Your task to perform on an android device: Turn off the flashlight Image 0: 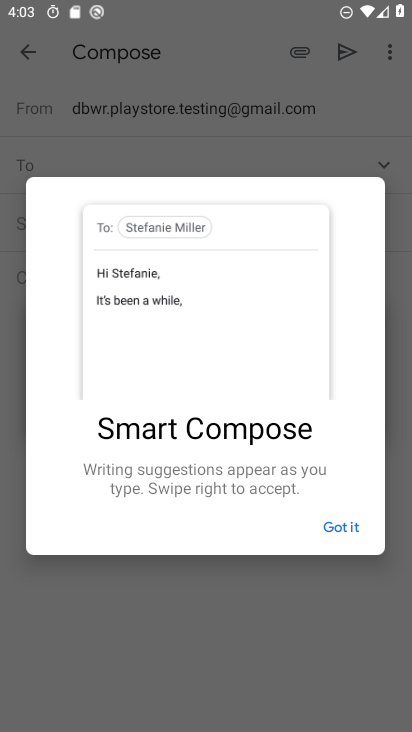
Step 0: press home button
Your task to perform on an android device: Turn off the flashlight Image 1: 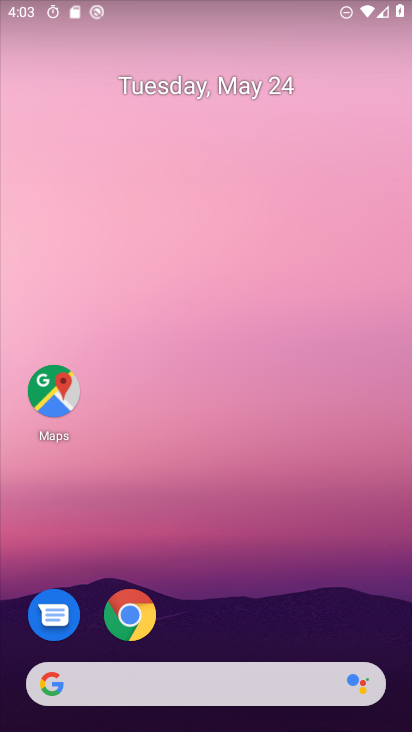
Step 1: task complete